Your task to perform on an android device: turn on improve location accuracy Image 0: 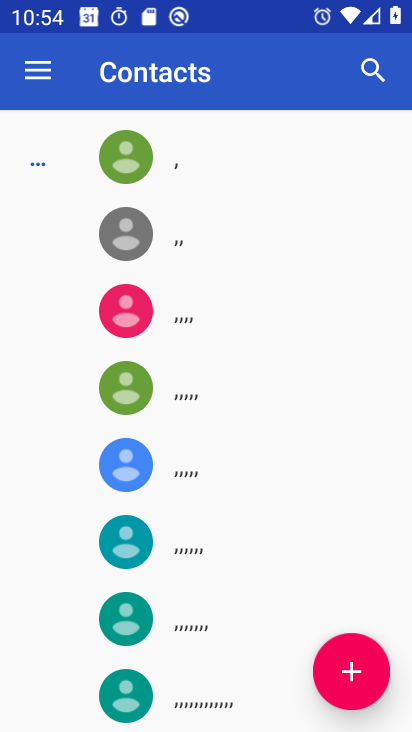
Step 0: press home button
Your task to perform on an android device: turn on improve location accuracy Image 1: 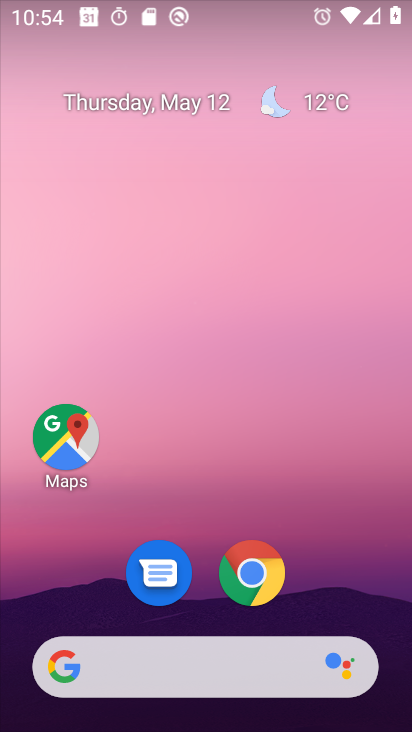
Step 1: click (346, 173)
Your task to perform on an android device: turn on improve location accuracy Image 2: 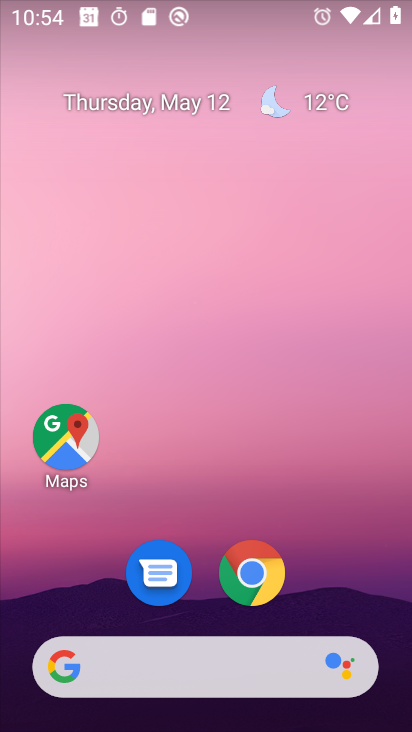
Step 2: drag from (393, 687) to (370, 261)
Your task to perform on an android device: turn on improve location accuracy Image 3: 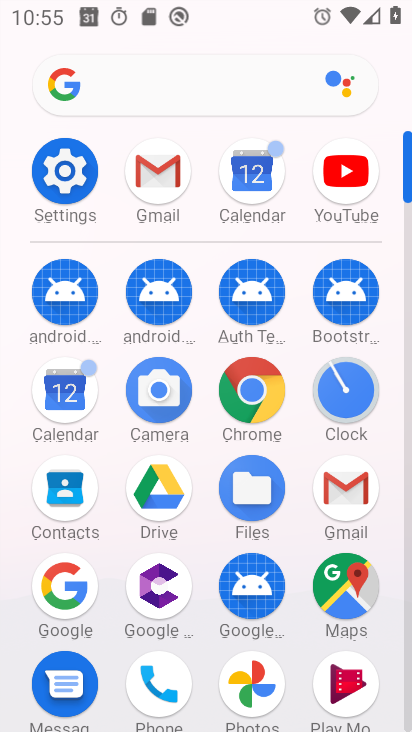
Step 3: click (77, 174)
Your task to perform on an android device: turn on improve location accuracy Image 4: 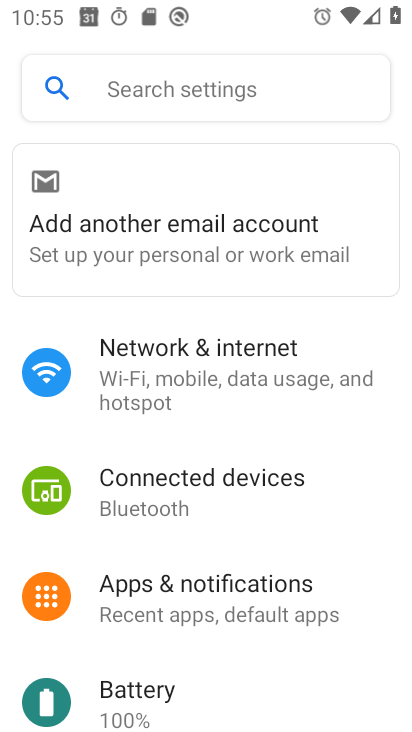
Step 4: drag from (289, 706) to (295, 424)
Your task to perform on an android device: turn on improve location accuracy Image 5: 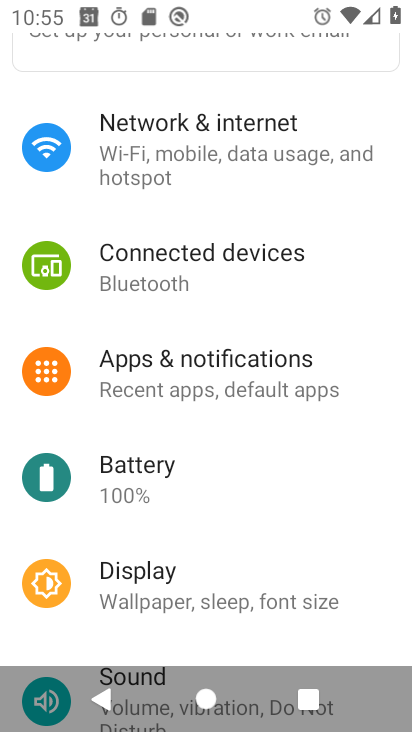
Step 5: drag from (275, 611) to (289, 365)
Your task to perform on an android device: turn on improve location accuracy Image 6: 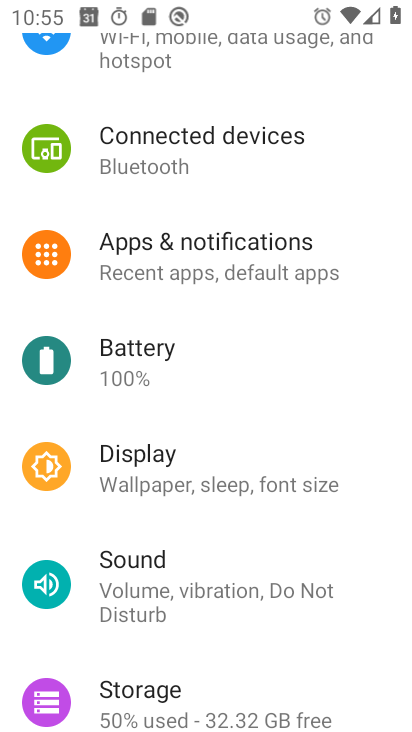
Step 6: drag from (213, 684) to (263, 398)
Your task to perform on an android device: turn on improve location accuracy Image 7: 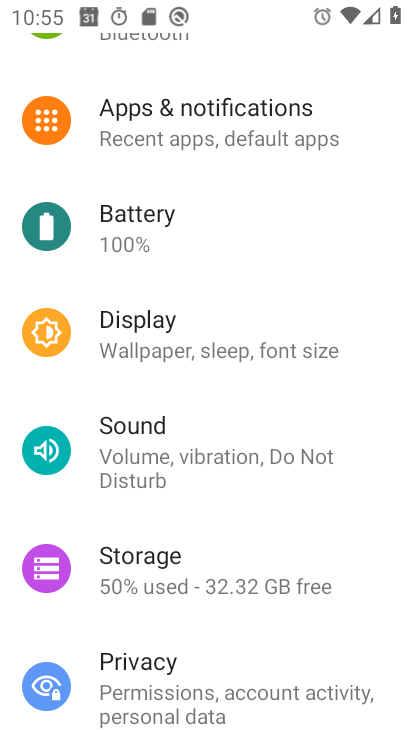
Step 7: drag from (336, 606) to (379, 349)
Your task to perform on an android device: turn on improve location accuracy Image 8: 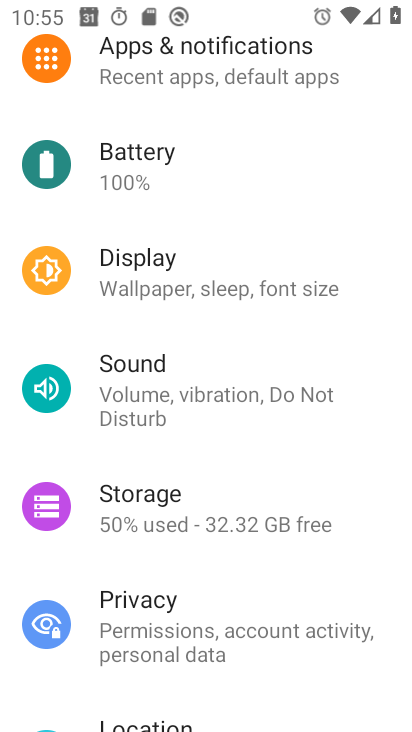
Step 8: drag from (321, 672) to (302, 415)
Your task to perform on an android device: turn on improve location accuracy Image 9: 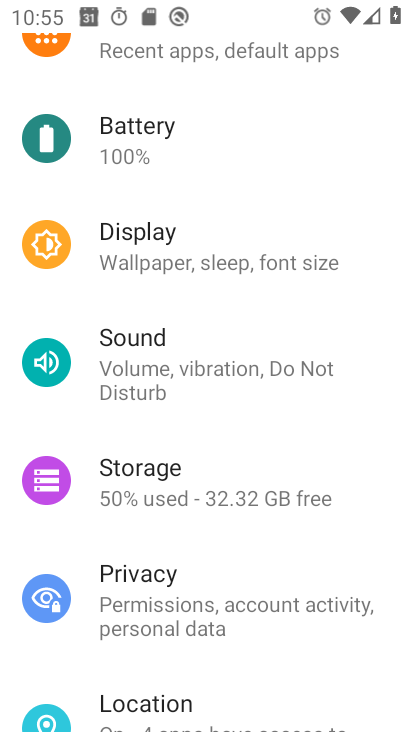
Step 9: click (131, 702)
Your task to perform on an android device: turn on improve location accuracy Image 10: 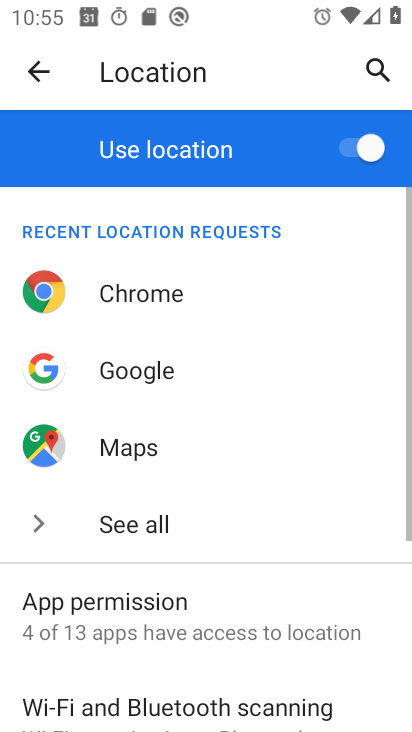
Step 10: drag from (254, 673) to (275, 449)
Your task to perform on an android device: turn on improve location accuracy Image 11: 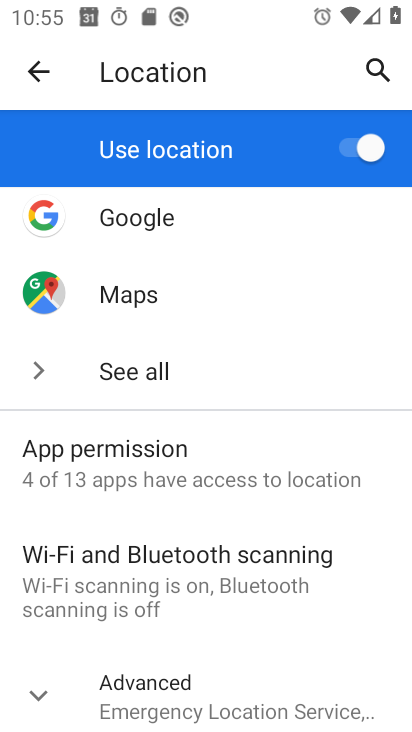
Step 11: drag from (264, 675) to (267, 428)
Your task to perform on an android device: turn on improve location accuracy Image 12: 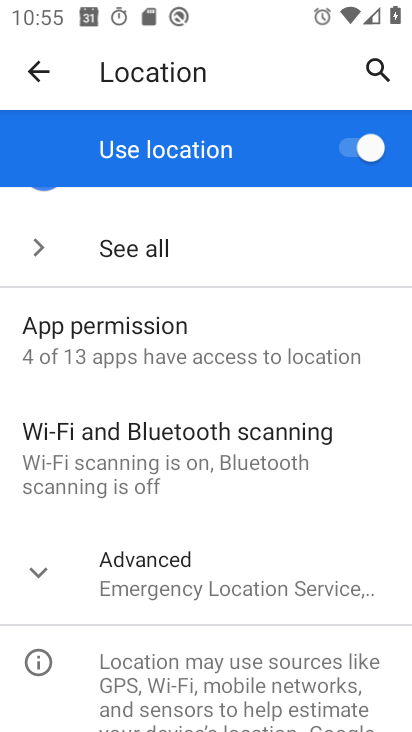
Step 12: drag from (237, 666) to (243, 454)
Your task to perform on an android device: turn on improve location accuracy Image 13: 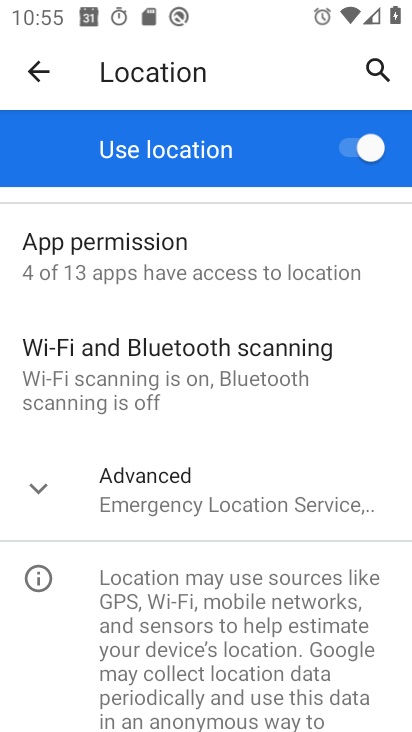
Step 13: click (43, 490)
Your task to perform on an android device: turn on improve location accuracy Image 14: 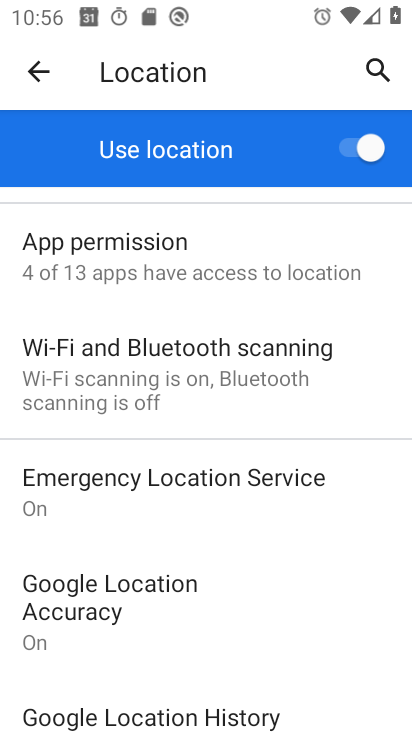
Step 14: click (70, 606)
Your task to perform on an android device: turn on improve location accuracy Image 15: 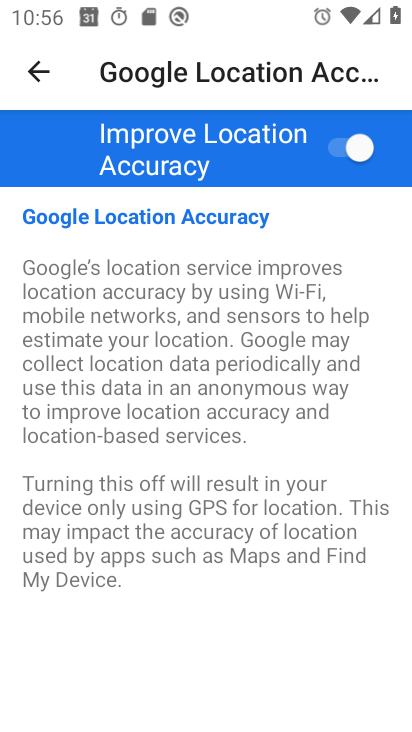
Step 15: task complete